Your task to perform on an android device: What's on my calendar tomorrow? Image 0: 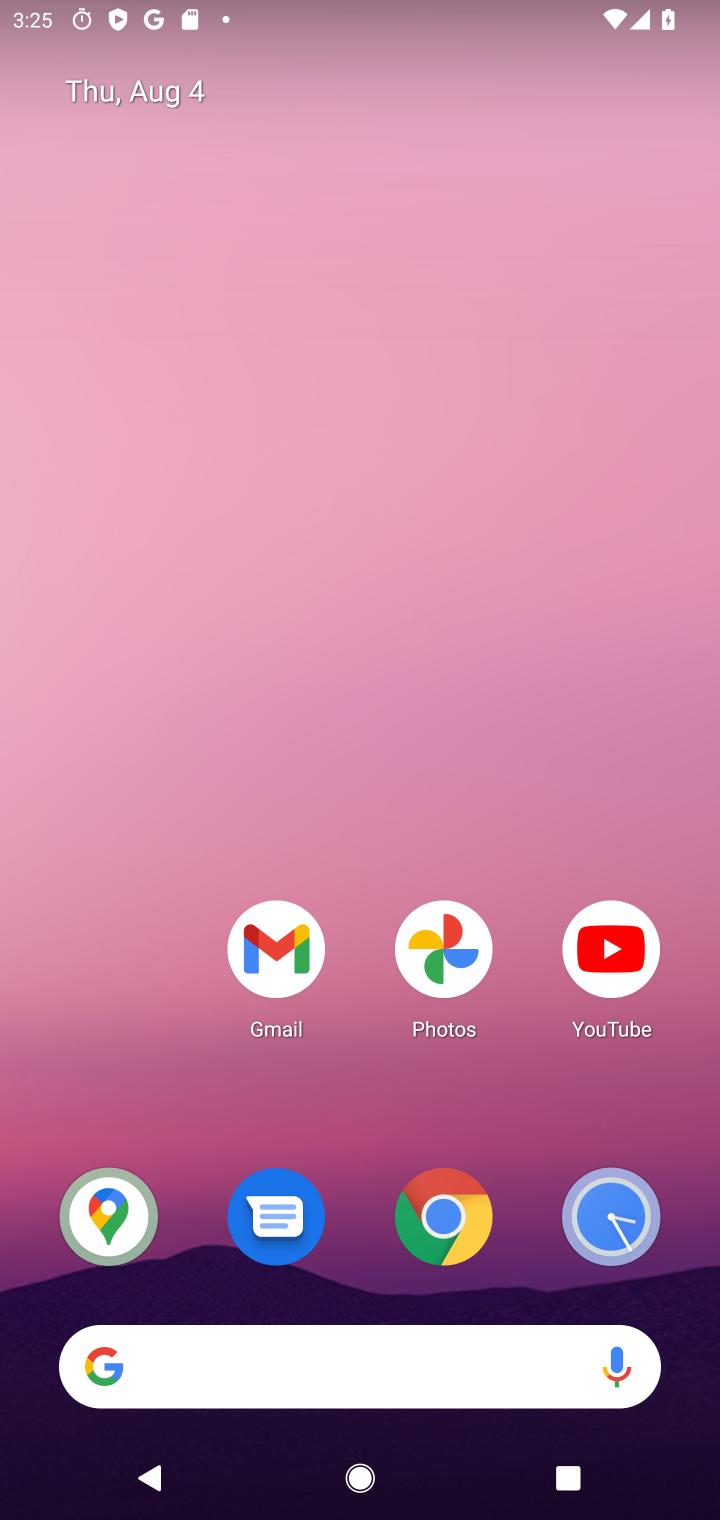
Step 0: drag from (200, 1030) to (448, 9)
Your task to perform on an android device: What's on my calendar tomorrow? Image 1: 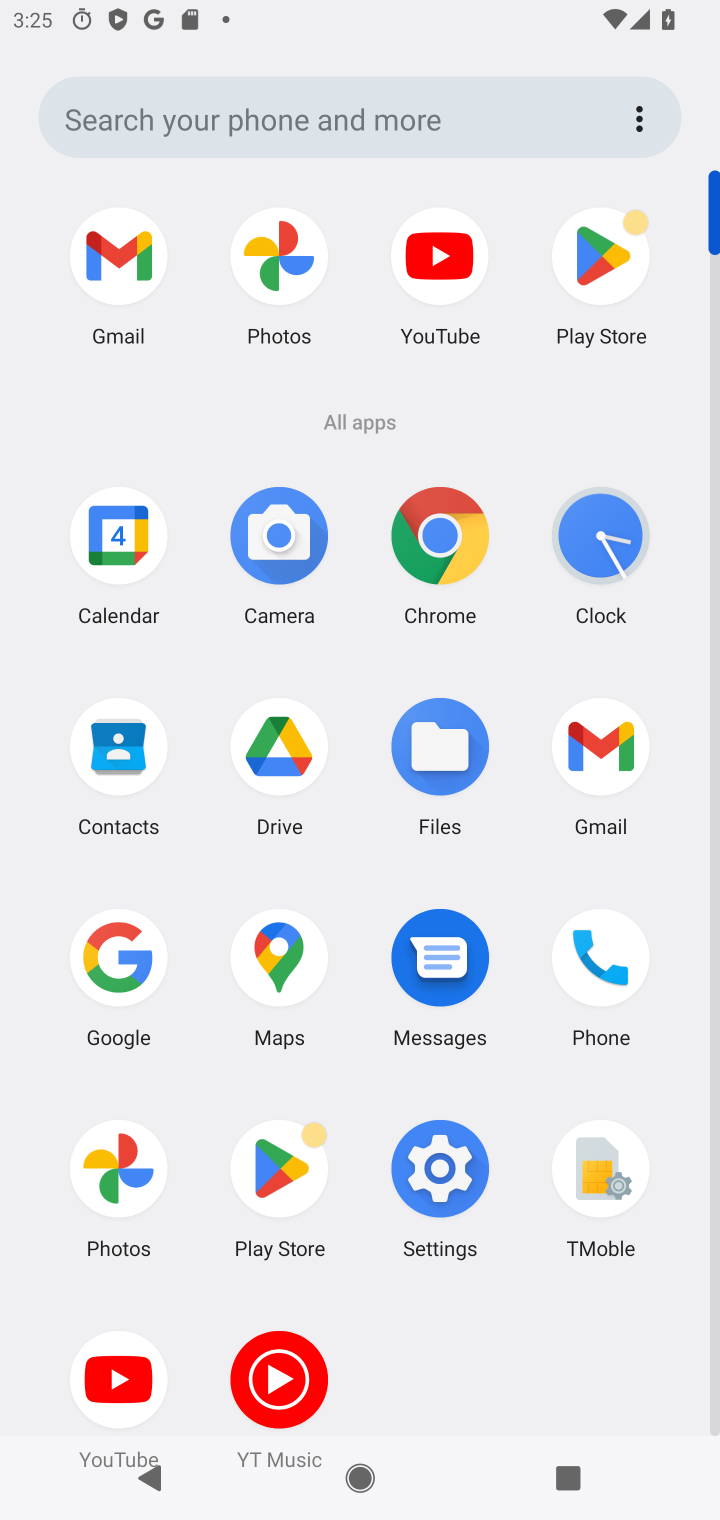
Step 1: click (114, 551)
Your task to perform on an android device: What's on my calendar tomorrow? Image 2: 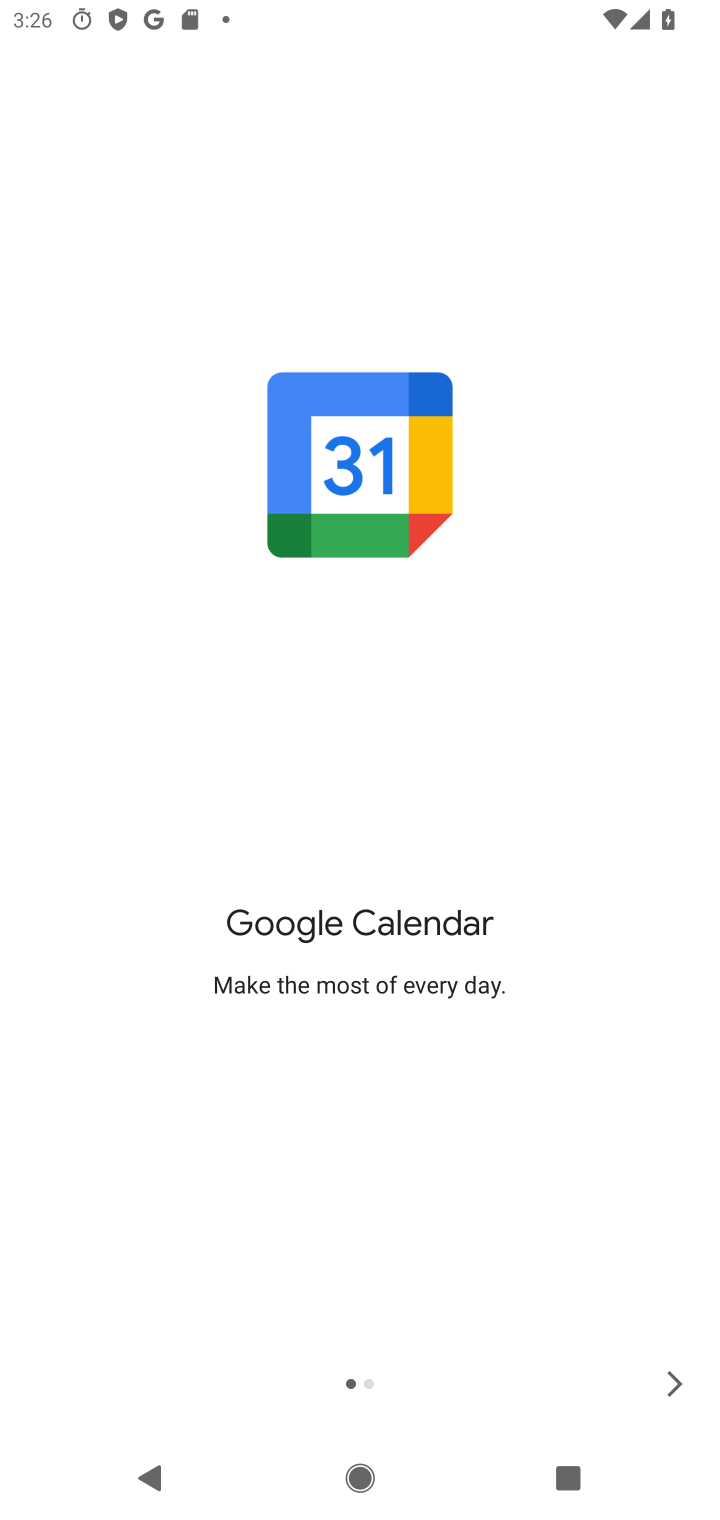
Step 2: click (690, 1371)
Your task to perform on an android device: What's on my calendar tomorrow? Image 3: 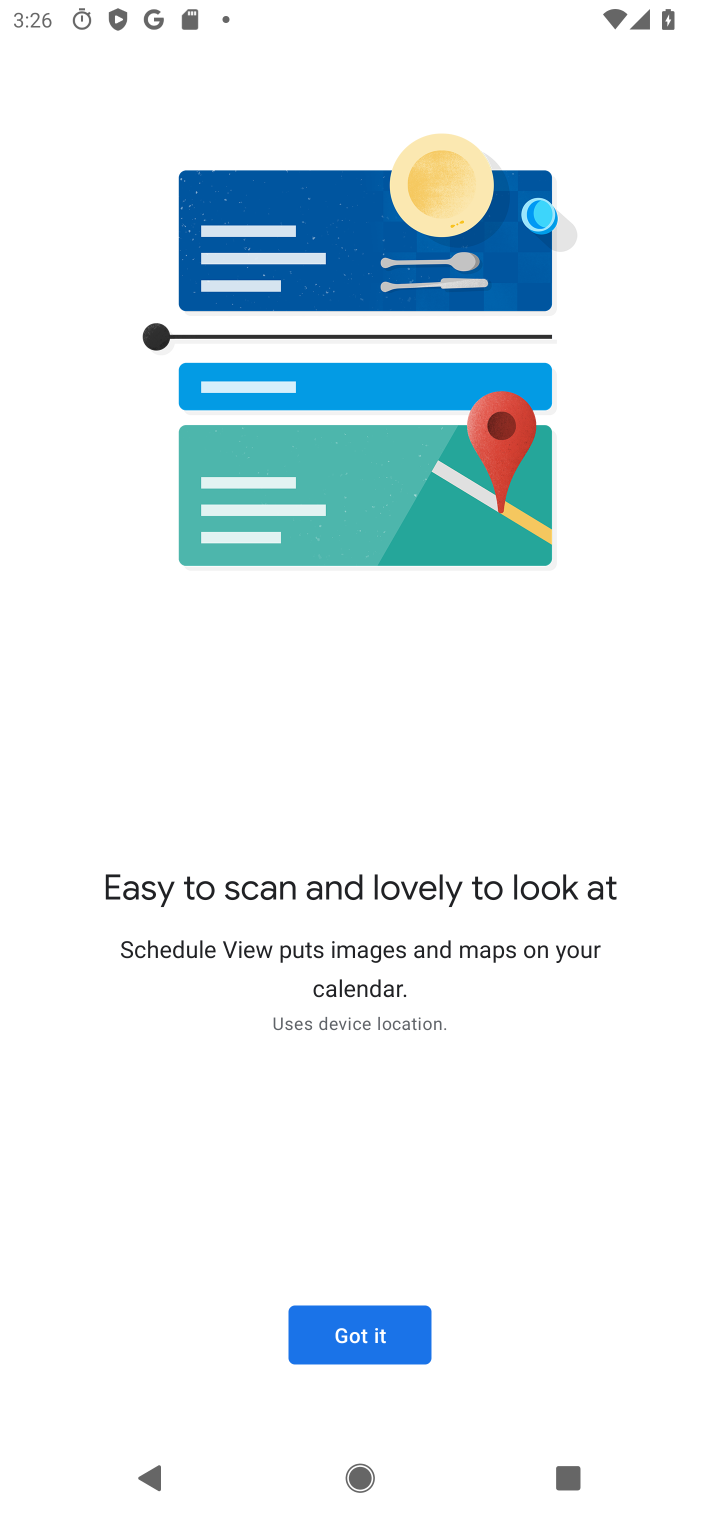
Step 3: click (411, 1323)
Your task to perform on an android device: What's on my calendar tomorrow? Image 4: 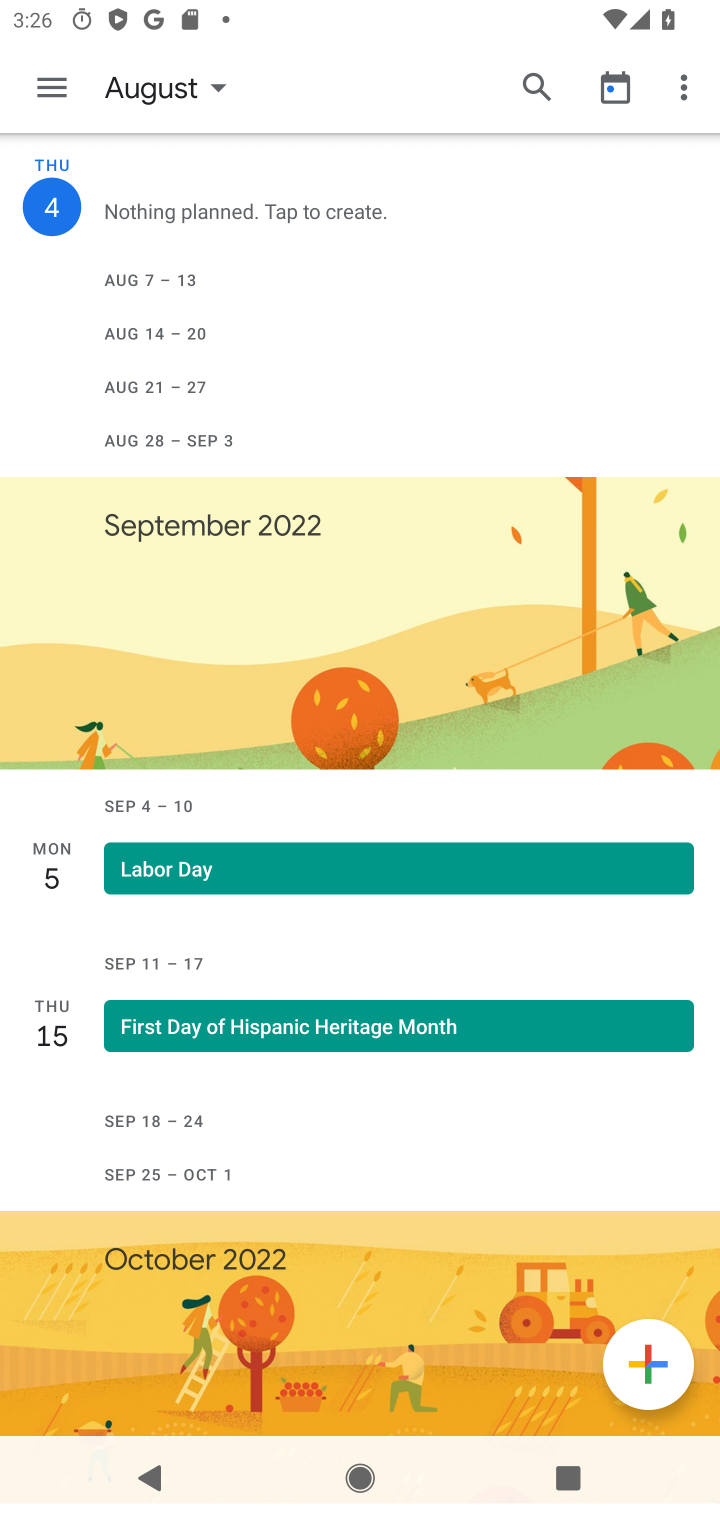
Step 4: click (176, 84)
Your task to perform on an android device: What's on my calendar tomorrow? Image 5: 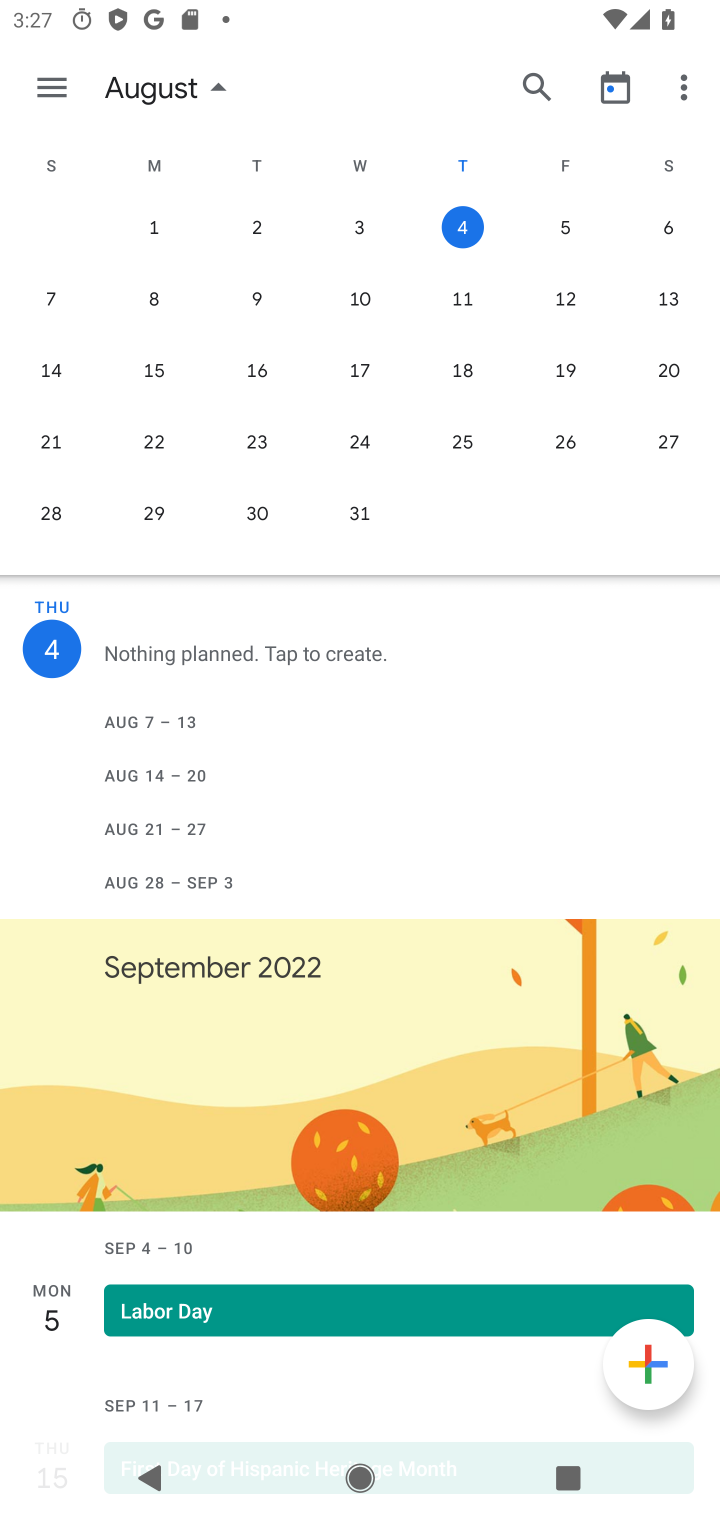
Step 5: click (580, 225)
Your task to perform on an android device: What's on my calendar tomorrow? Image 6: 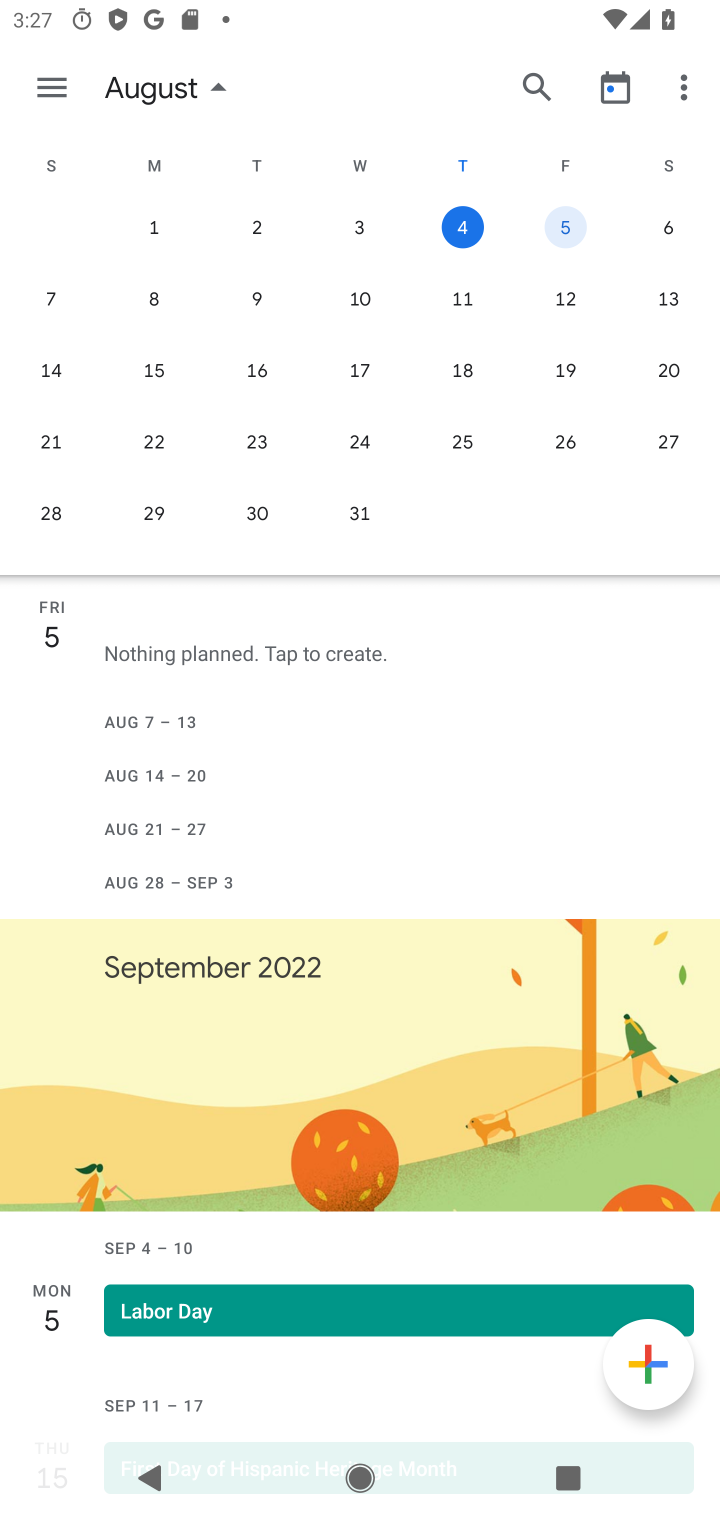
Step 6: task complete